Your task to perform on an android device: Do I have any events this weekend? Image 0: 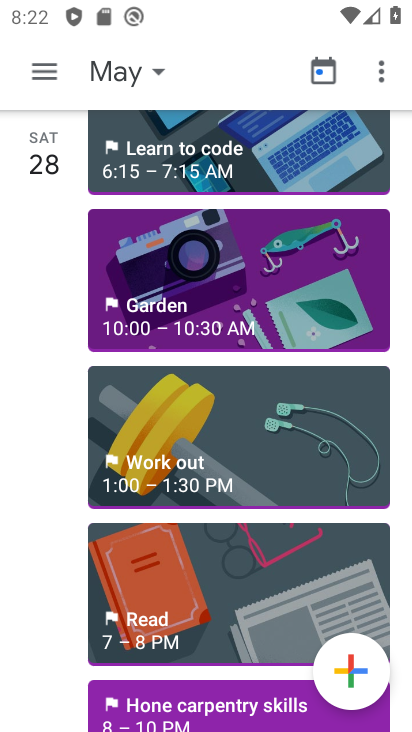
Step 0: press home button
Your task to perform on an android device: Do I have any events this weekend? Image 1: 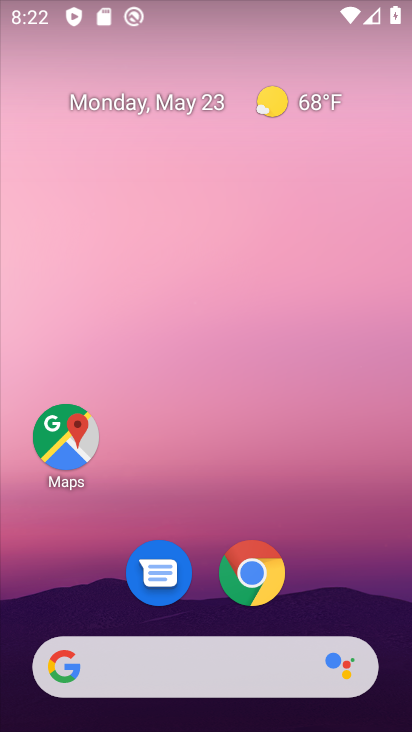
Step 1: drag from (203, 624) to (274, 110)
Your task to perform on an android device: Do I have any events this weekend? Image 2: 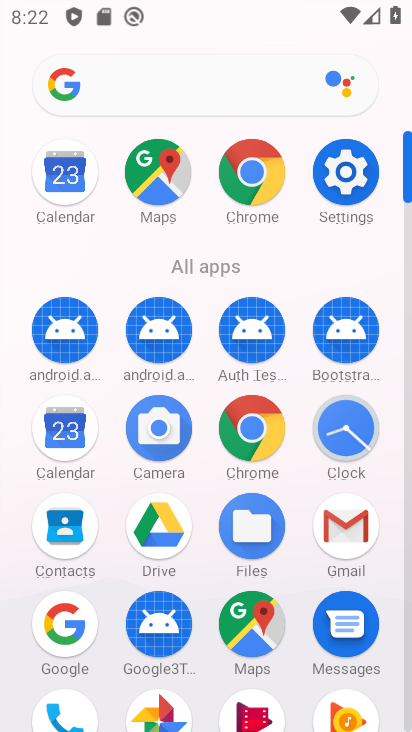
Step 2: click (60, 423)
Your task to perform on an android device: Do I have any events this weekend? Image 3: 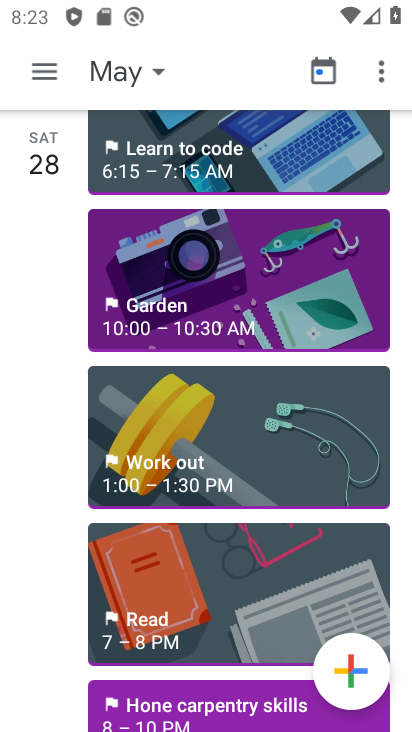
Step 3: task complete